Your task to perform on an android device: open a new tab in the chrome app Image 0: 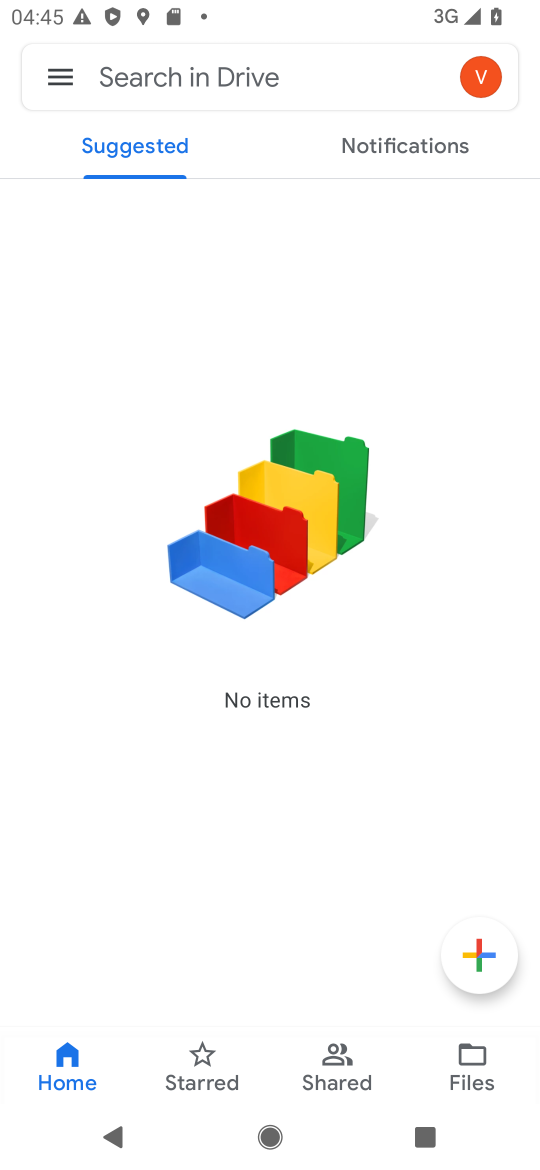
Step 0: press home button
Your task to perform on an android device: open a new tab in the chrome app Image 1: 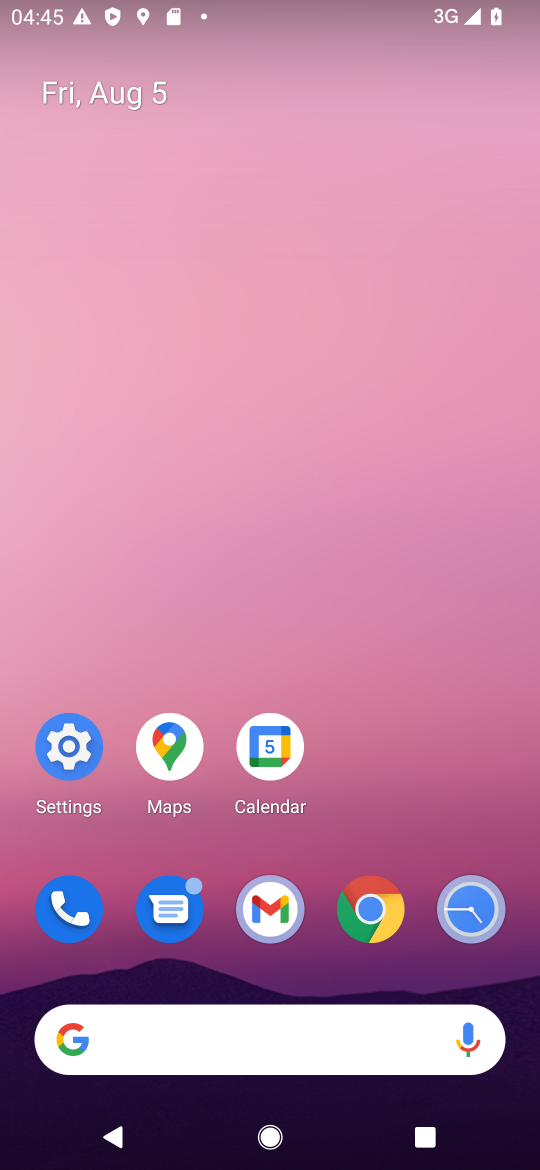
Step 1: click (378, 916)
Your task to perform on an android device: open a new tab in the chrome app Image 2: 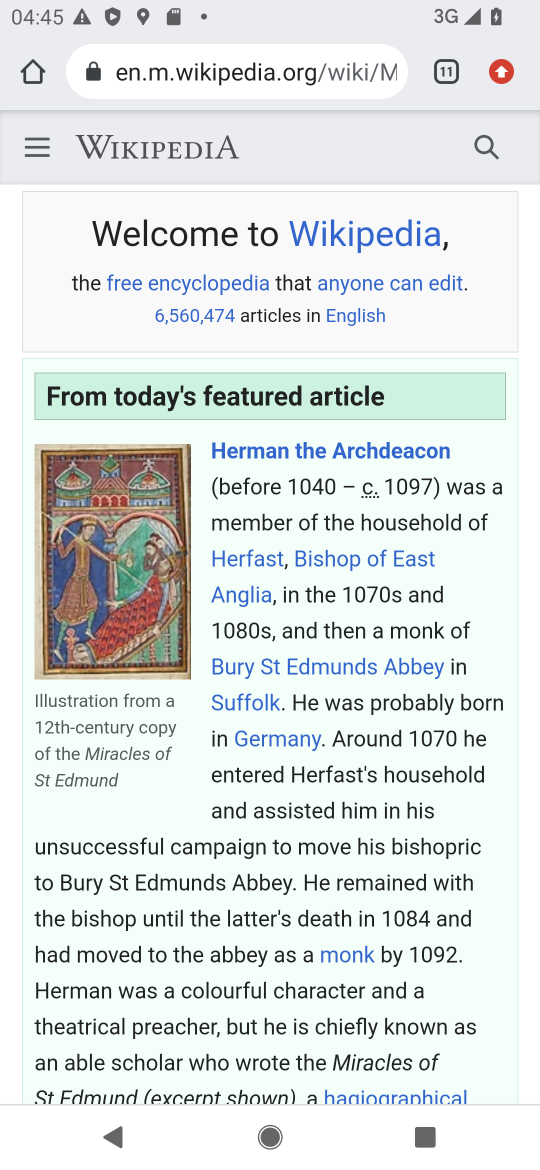
Step 2: click (499, 67)
Your task to perform on an android device: open a new tab in the chrome app Image 3: 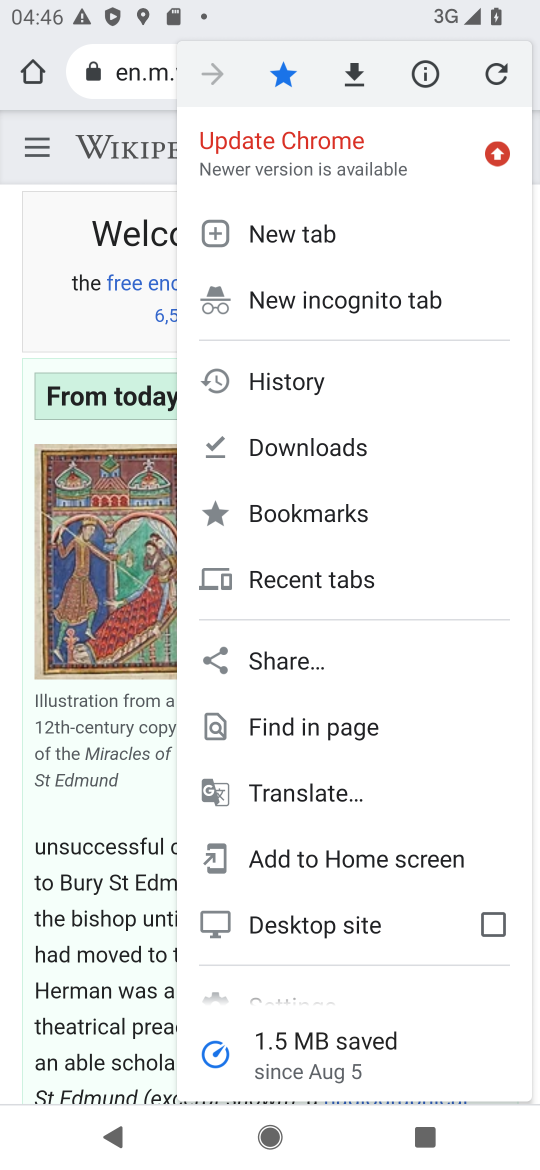
Step 3: click (297, 229)
Your task to perform on an android device: open a new tab in the chrome app Image 4: 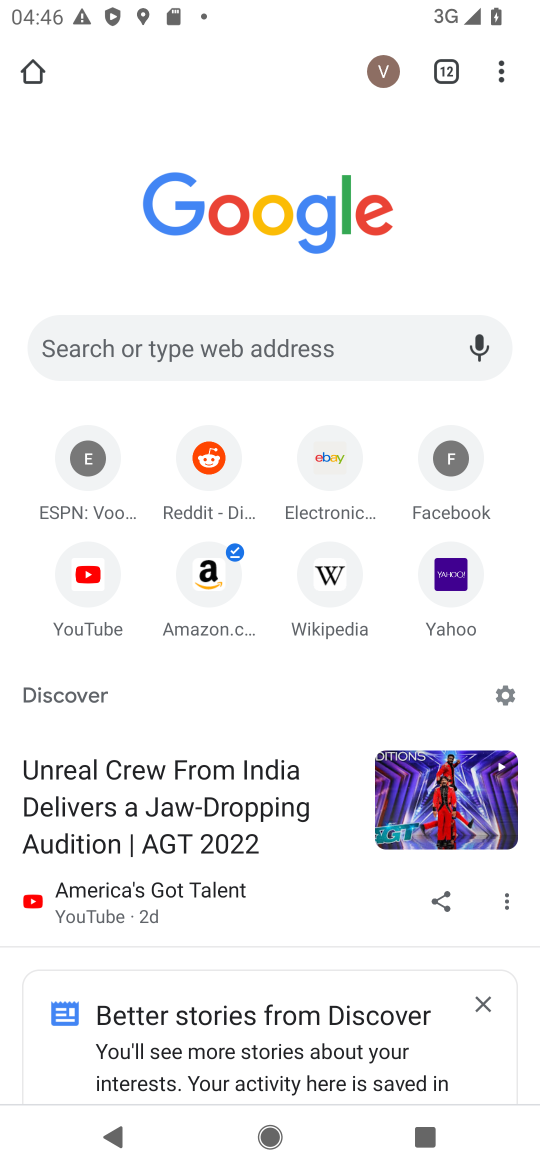
Step 4: task complete